Your task to perform on an android device: Open the stopwatch Image 0: 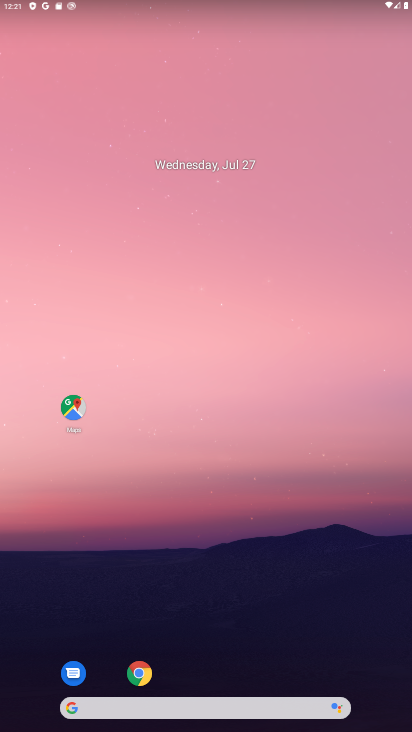
Step 0: drag from (211, 483) to (182, 66)
Your task to perform on an android device: Open the stopwatch Image 1: 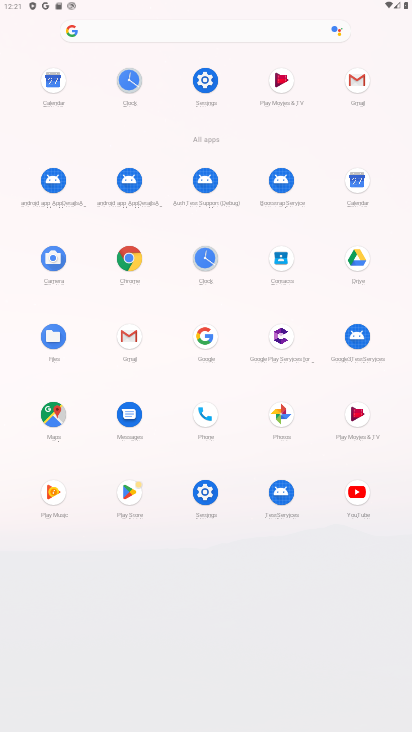
Step 1: click (202, 255)
Your task to perform on an android device: Open the stopwatch Image 2: 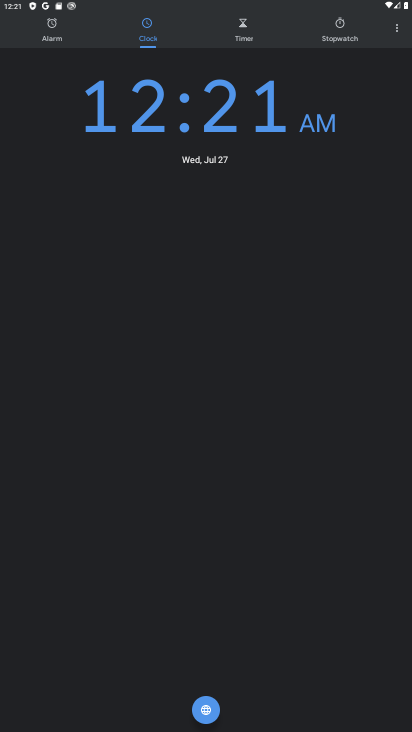
Step 2: click (343, 42)
Your task to perform on an android device: Open the stopwatch Image 3: 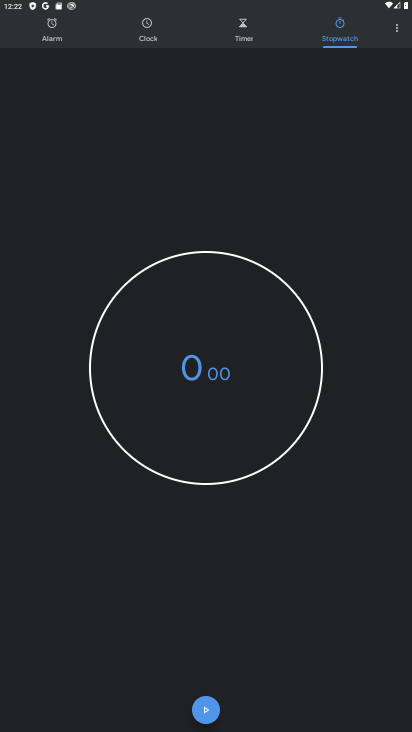
Step 3: task complete